Your task to perform on an android device: Open calendar and show me the third week of next month Image 0: 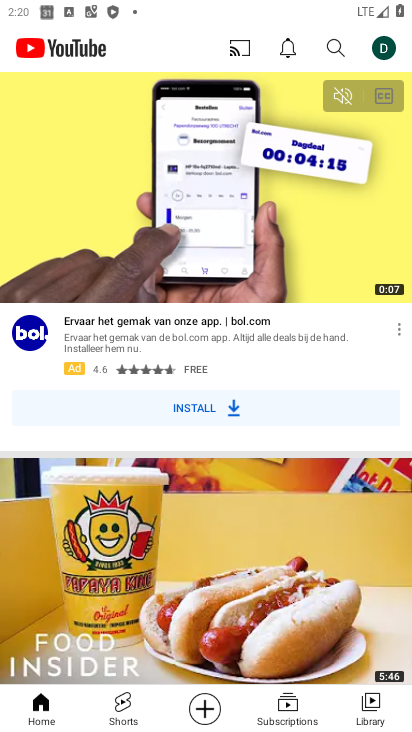
Step 0: press home button
Your task to perform on an android device: Open calendar and show me the third week of next month Image 1: 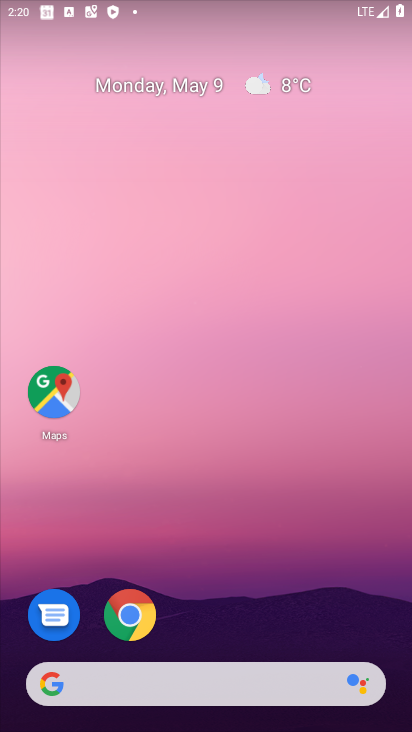
Step 1: drag from (327, 620) to (228, 197)
Your task to perform on an android device: Open calendar and show me the third week of next month Image 2: 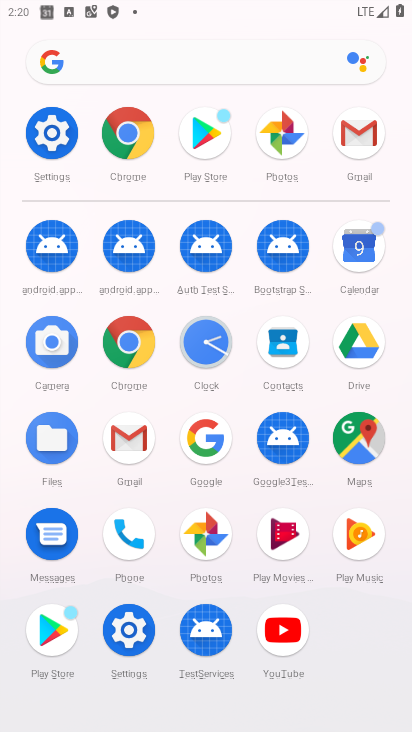
Step 2: click (359, 244)
Your task to perform on an android device: Open calendar and show me the third week of next month Image 3: 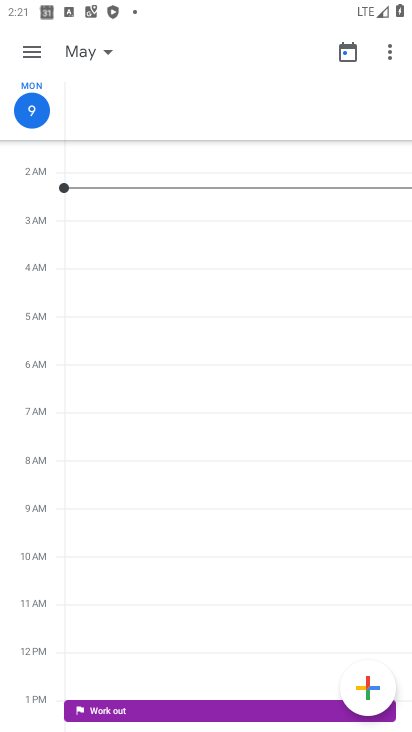
Step 3: click (31, 55)
Your task to perform on an android device: Open calendar and show me the third week of next month Image 4: 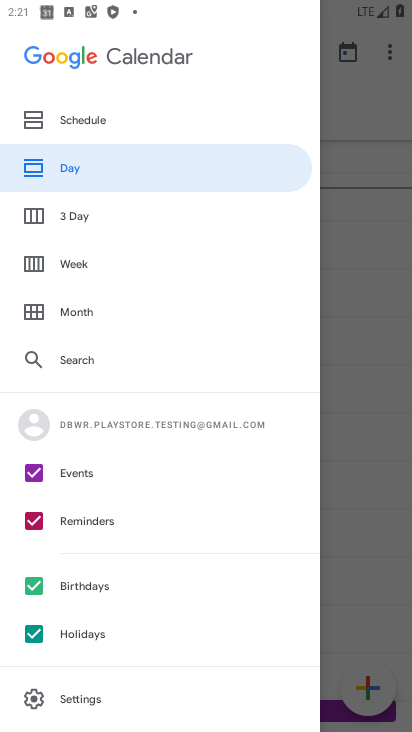
Step 4: click (66, 260)
Your task to perform on an android device: Open calendar and show me the third week of next month Image 5: 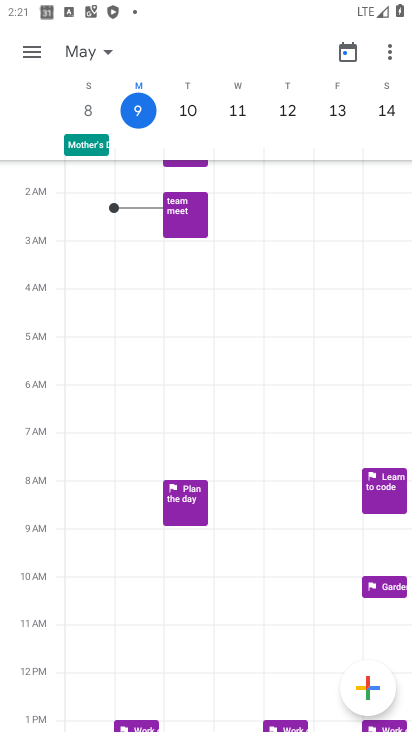
Step 5: click (109, 54)
Your task to perform on an android device: Open calendar and show me the third week of next month Image 6: 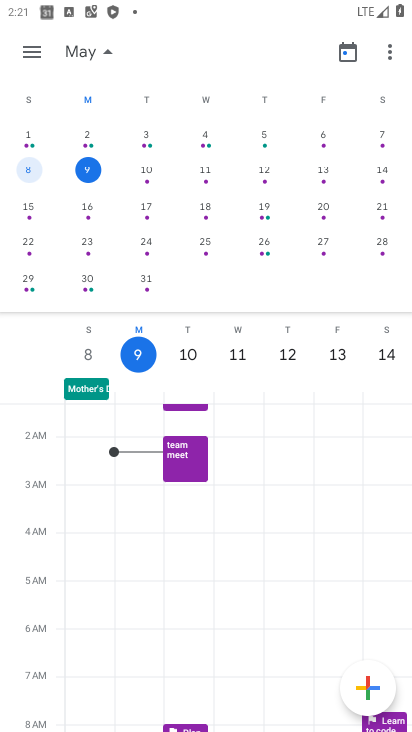
Step 6: drag from (388, 167) to (17, 205)
Your task to perform on an android device: Open calendar and show me the third week of next month Image 7: 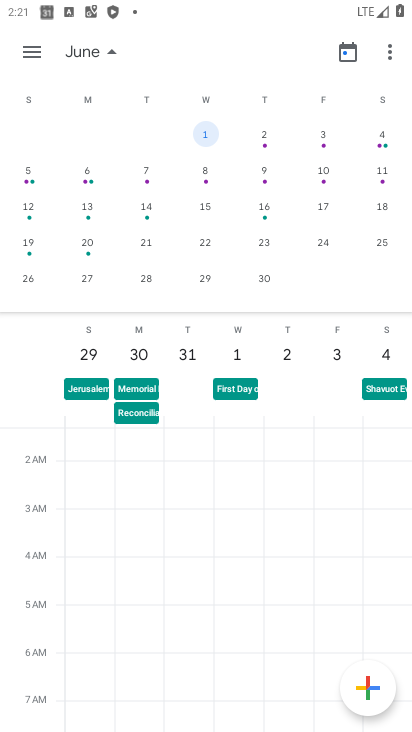
Step 7: click (32, 213)
Your task to perform on an android device: Open calendar and show me the third week of next month Image 8: 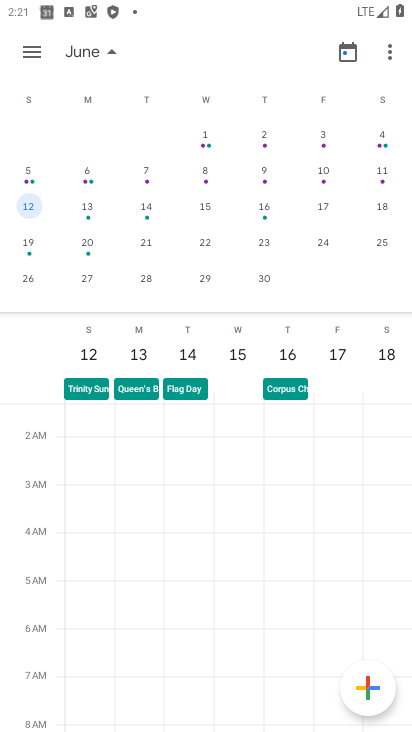
Step 8: task complete